Your task to perform on an android device: Go to location settings Image 0: 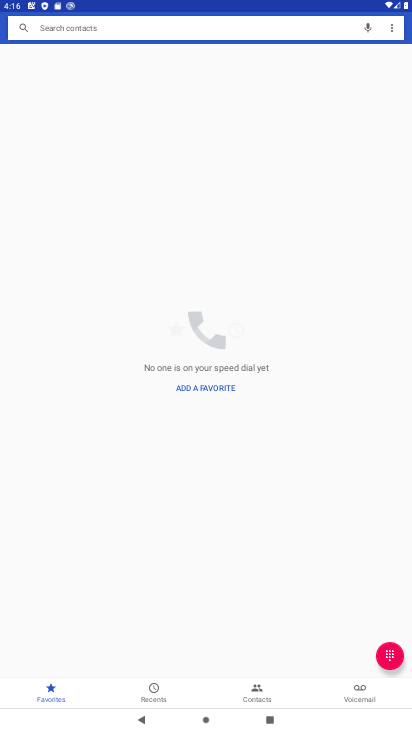
Step 0: drag from (261, 12) to (307, 543)
Your task to perform on an android device: Go to location settings Image 1: 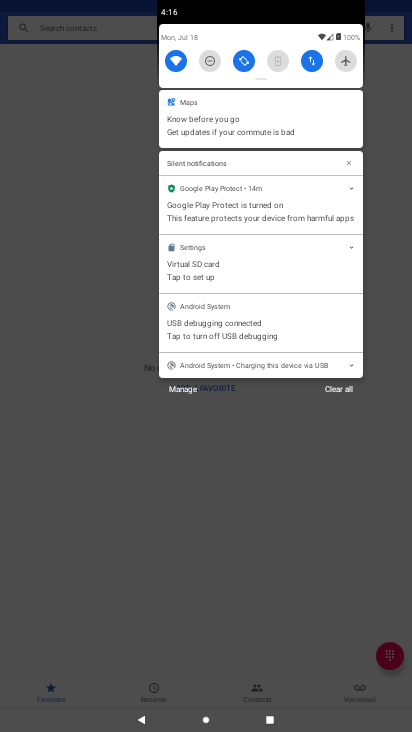
Step 1: drag from (255, 54) to (272, 724)
Your task to perform on an android device: Go to location settings Image 2: 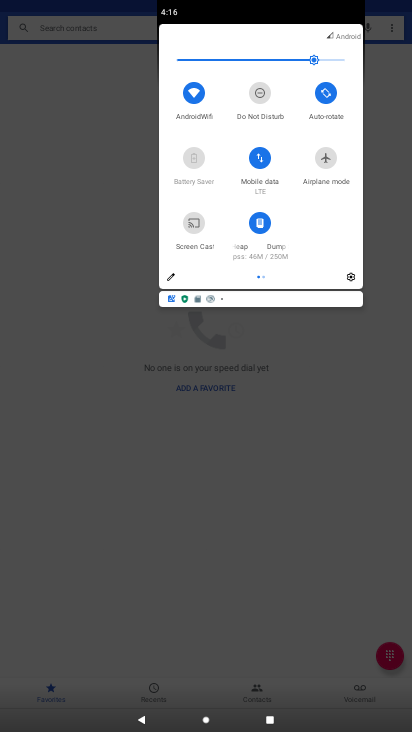
Step 2: click (348, 275)
Your task to perform on an android device: Go to location settings Image 3: 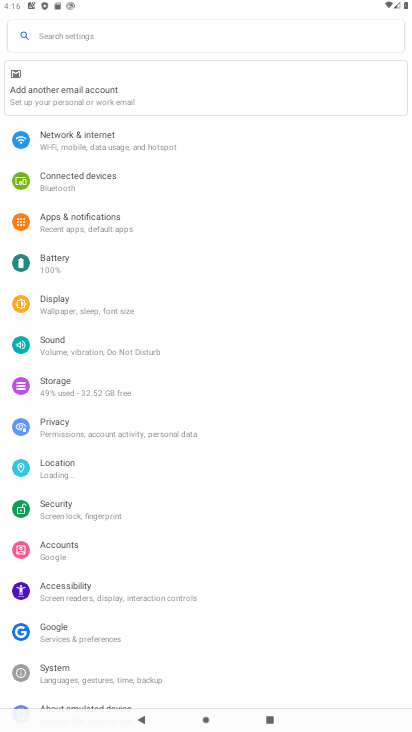
Step 3: click (59, 467)
Your task to perform on an android device: Go to location settings Image 4: 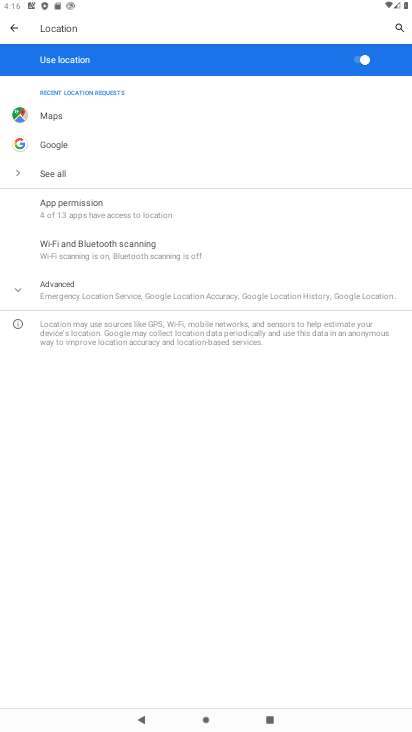
Step 4: task complete